Your task to perform on an android device: What's a good restaurant in Seattle? Image 0: 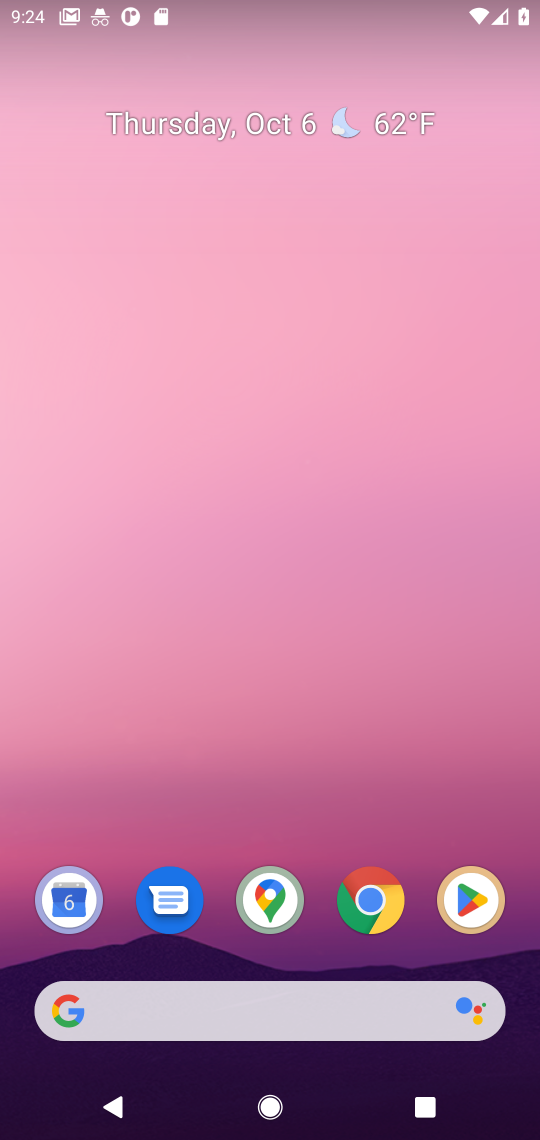
Step 0: click (277, 1015)
Your task to perform on an android device: What's a good restaurant in Seattle? Image 1: 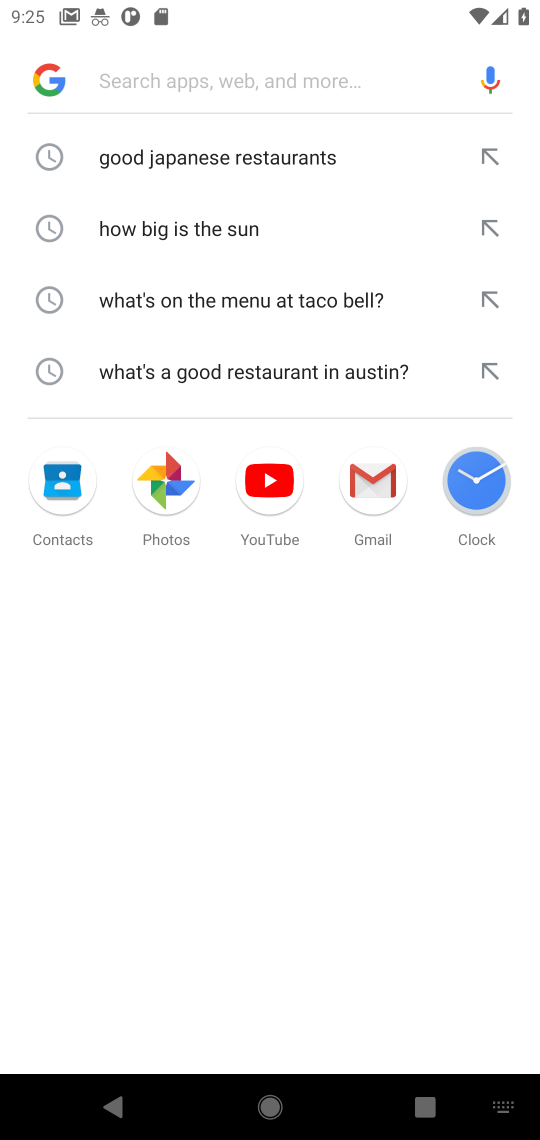
Step 1: press enter
Your task to perform on an android device: What's a good restaurant in Seattle? Image 2: 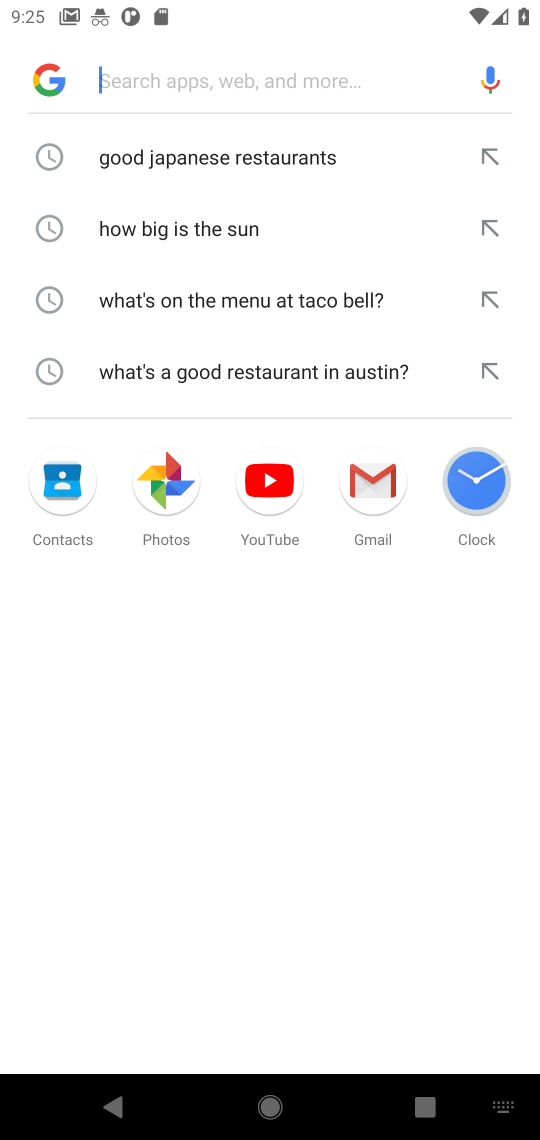
Step 2: type "What's a good restaurant in Seattle?"
Your task to perform on an android device: What's a good restaurant in Seattle? Image 3: 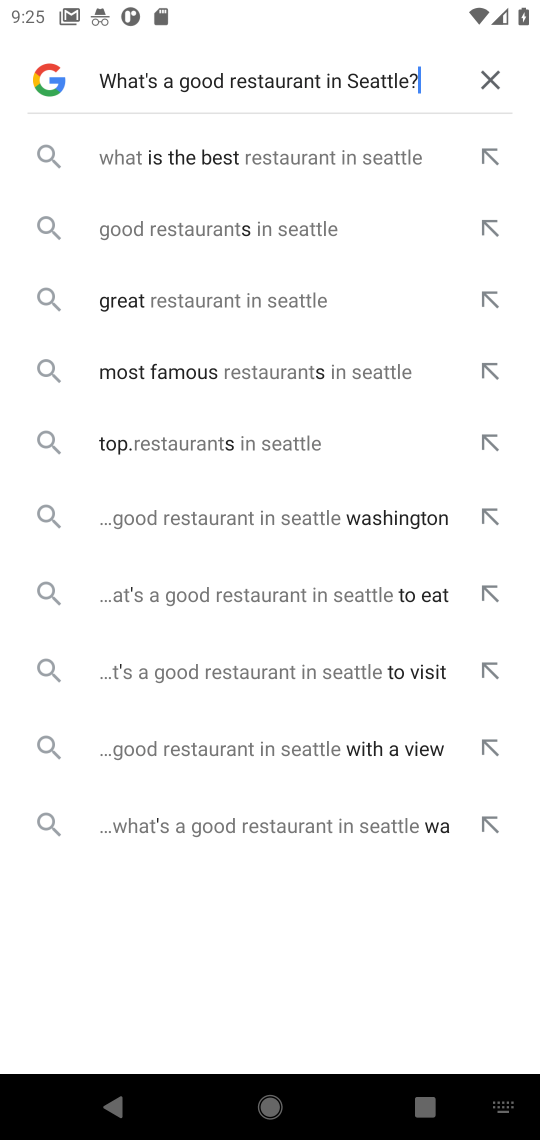
Step 3: press enter
Your task to perform on an android device: What's a good restaurant in Seattle? Image 4: 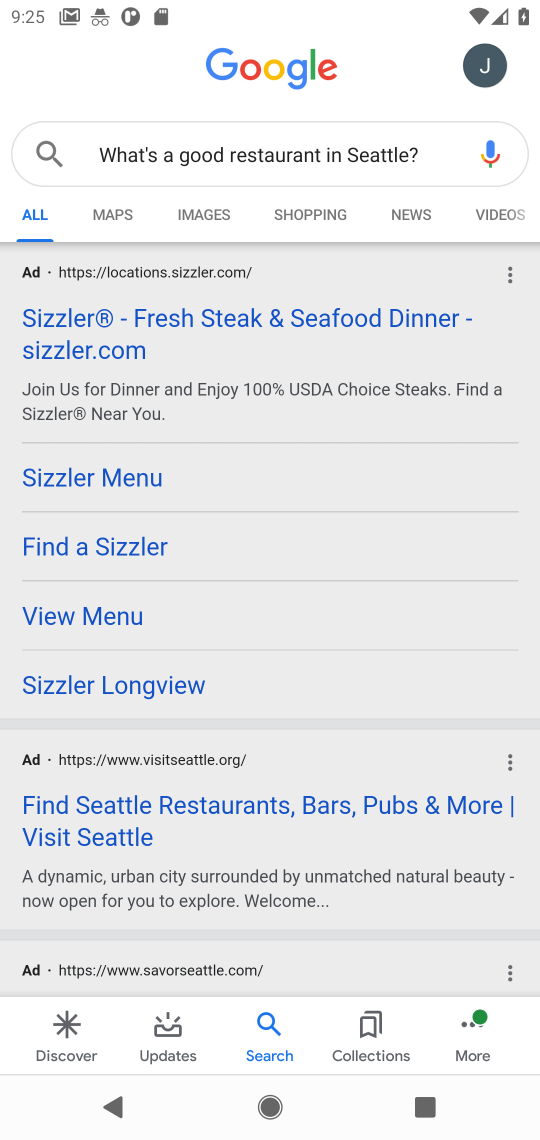
Step 4: drag from (328, 848) to (345, 554)
Your task to perform on an android device: What's a good restaurant in Seattle? Image 5: 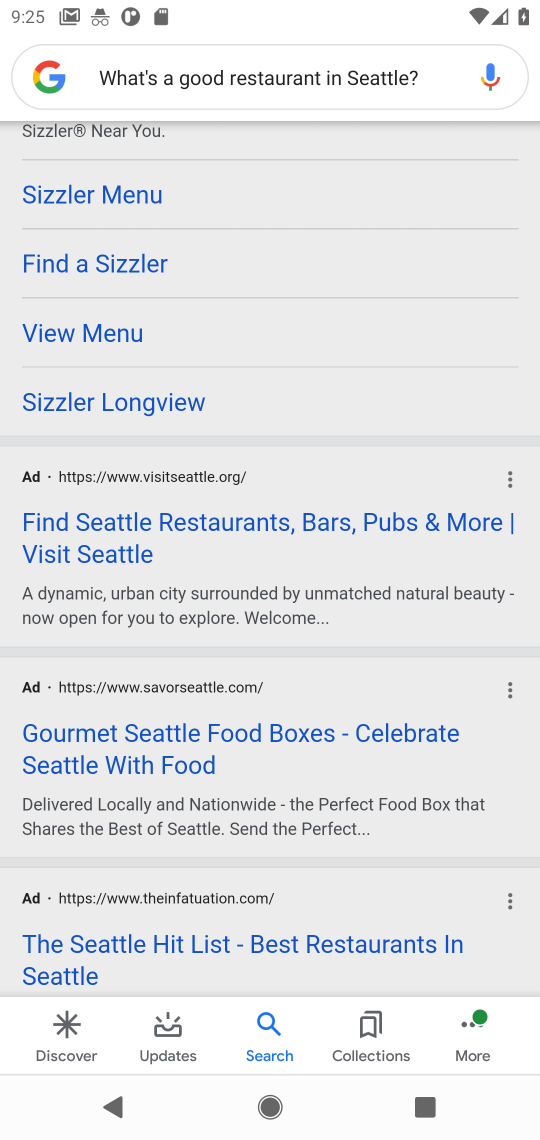
Step 5: drag from (328, 778) to (341, 476)
Your task to perform on an android device: What's a good restaurant in Seattle? Image 6: 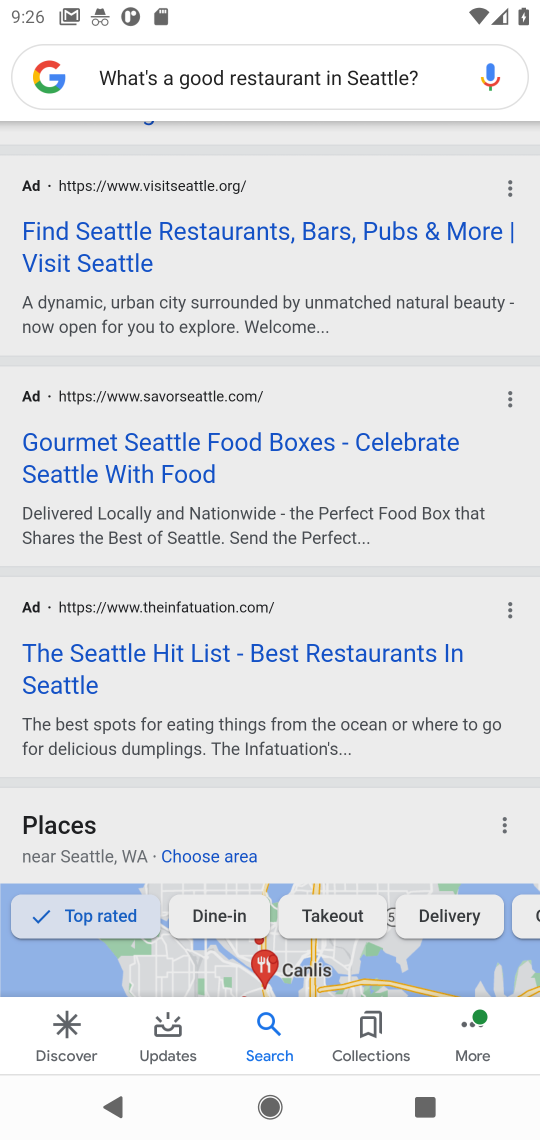
Step 6: drag from (293, 802) to (313, 390)
Your task to perform on an android device: What's a good restaurant in Seattle? Image 7: 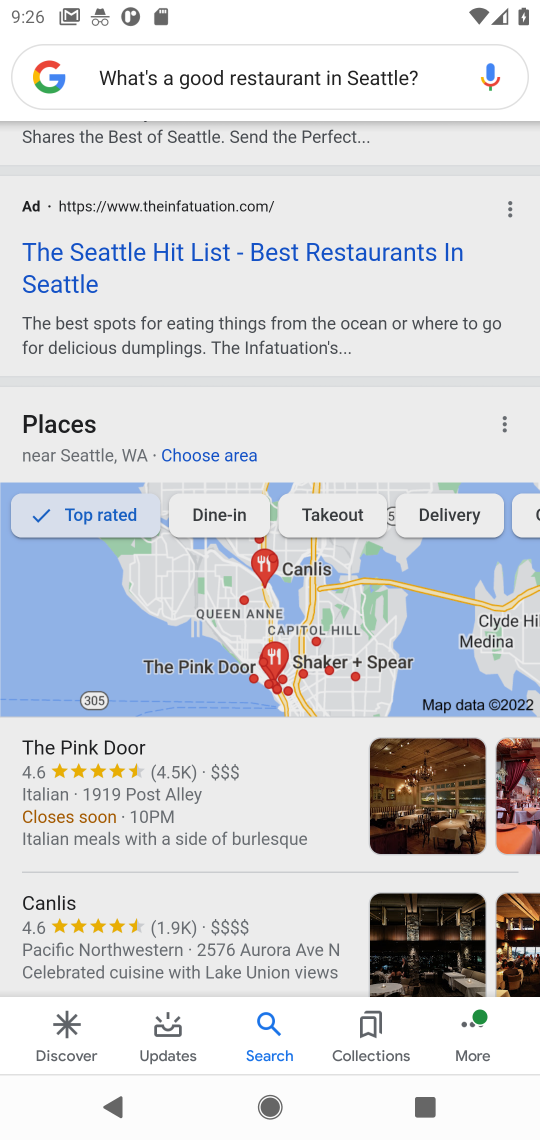
Step 7: drag from (261, 801) to (283, 481)
Your task to perform on an android device: What's a good restaurant in Seattle? Image 8: 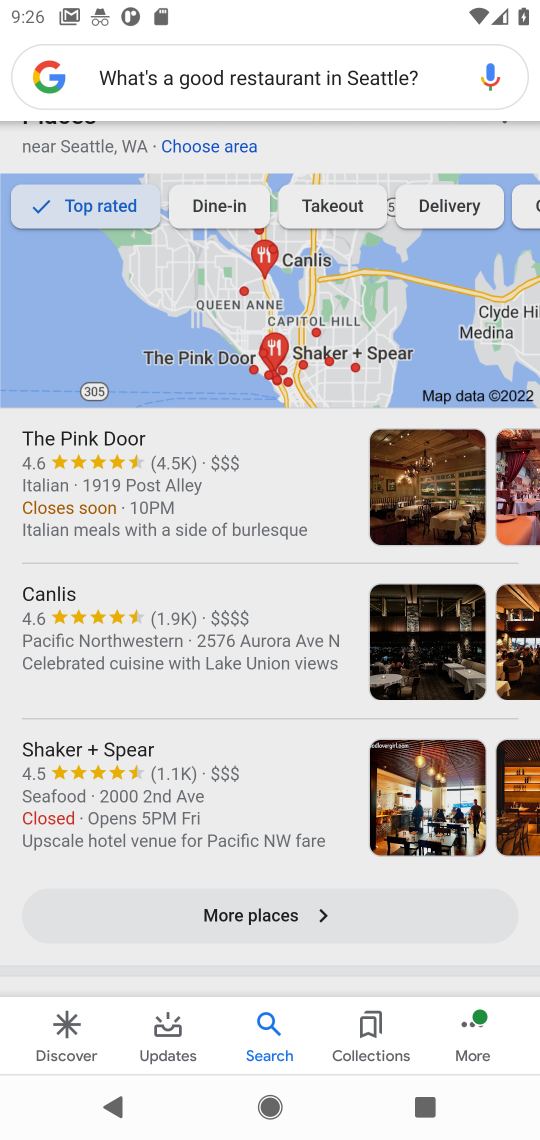
Step 8: click (243, 906)
Your task to perform on an android device: What's a good restaurant in Seattle? Image 9: 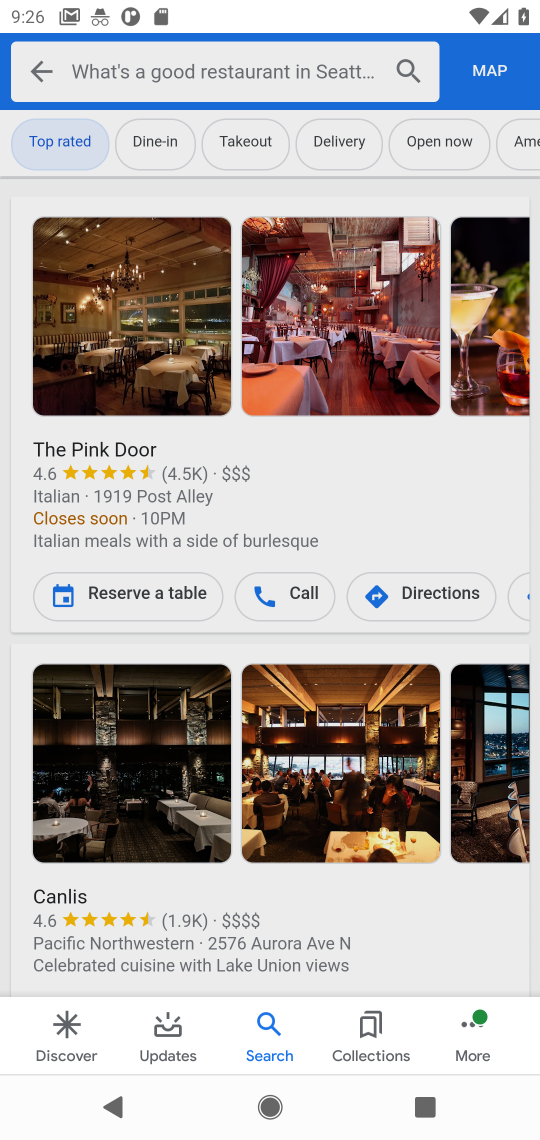
Step 9: task complete